Your task to perform on an android device: delete browsing data in the chrome app Image 0: 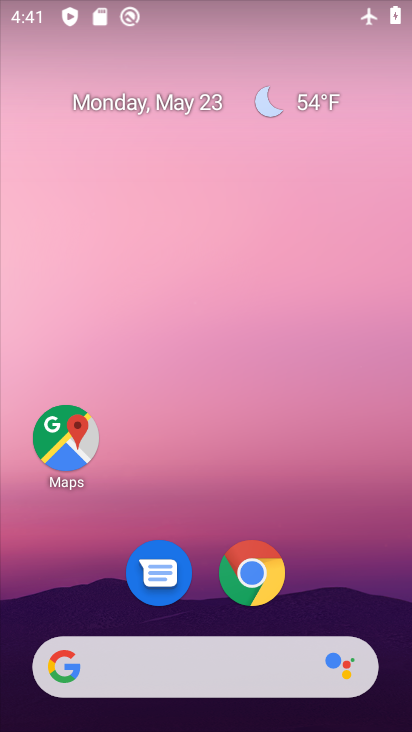
Step 0: click (260, 580)
Your task to perform on an android device: delete browsing data in the chrome app Image 1: 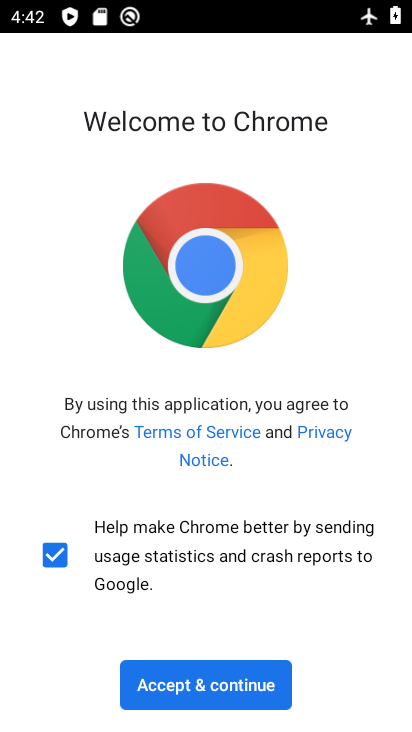
Step 1: click (179, 701)
Your task to perform on an android device: delete browsing data in the chrome app Image 2: 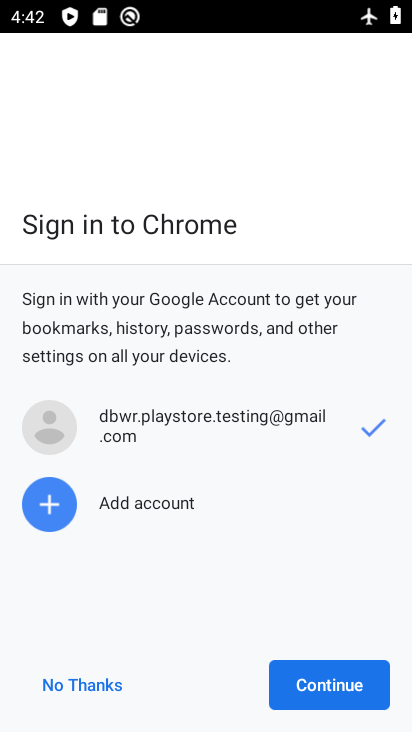
Step 2: click (342, 684)
Your task to perform on an android device: delete browsing data in the chrome app Image 3: 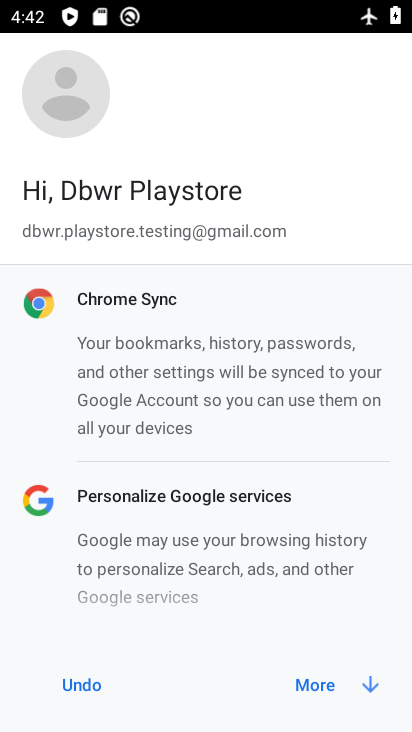
Step 3: click (306, 687)
Your task to perform on an android device: delete browsing data in the chrome app Image 4: 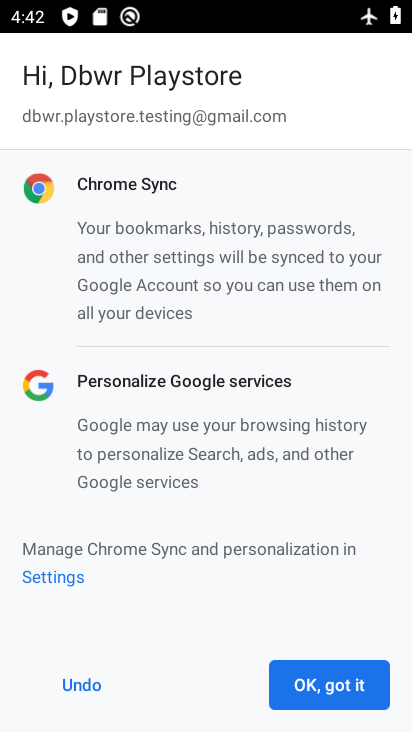
Step 4: click (338, 684)
Your task to perform on an android device: delete browsing data in the chrome app Image 5: 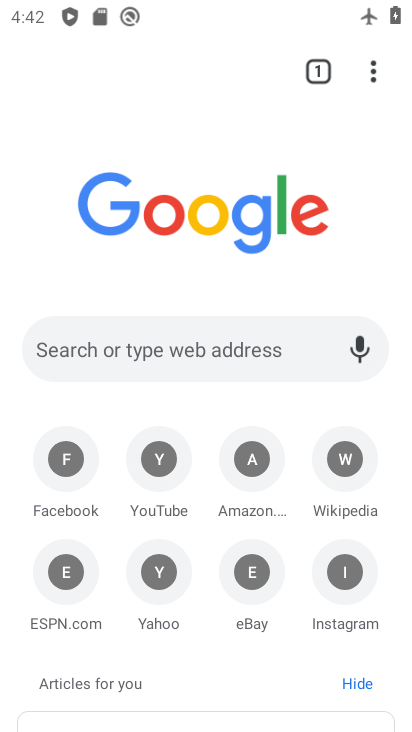
Step 5: click (376, 78)
Your task to perform on an android device: delete browsing data in the chrome app Image 6: 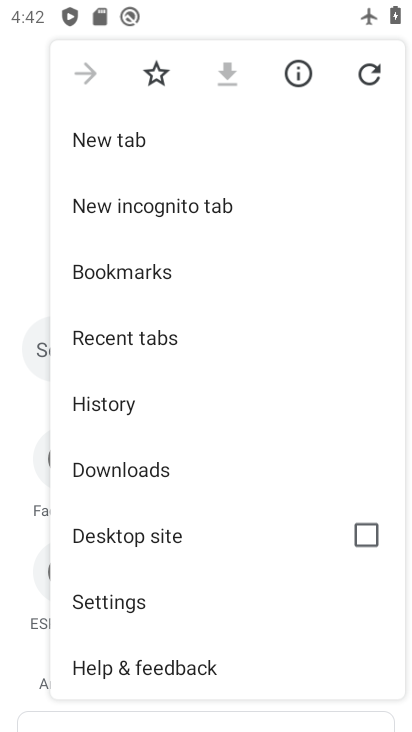
Step 6: click (92, 399)
Your task to perform on an android device: delete browsing data in the chrome app Image 7: 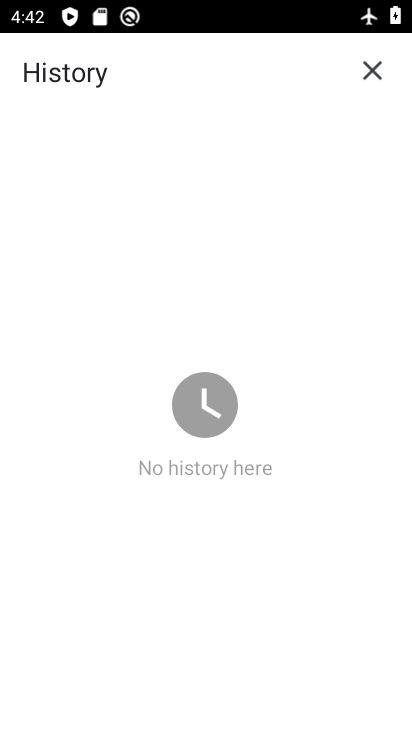
Step 7: task complete